Your task to perform on an android device: set default search engine in the chrome app Image 0: 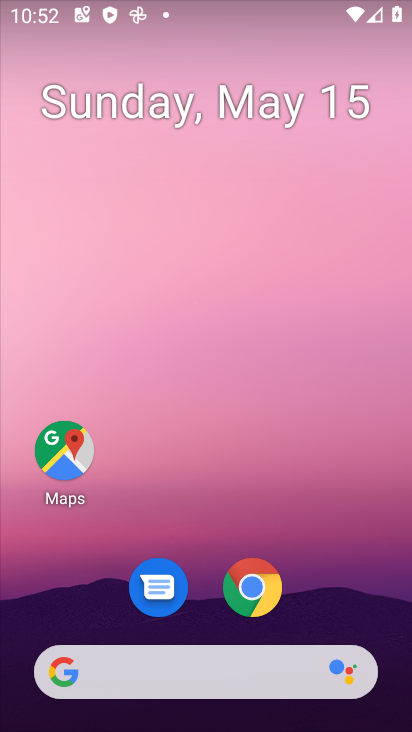
Step 0: drag from (384, 627) to (268, 43)
Your task to perform on an android device: set default search engine in the chrome app Image 1: 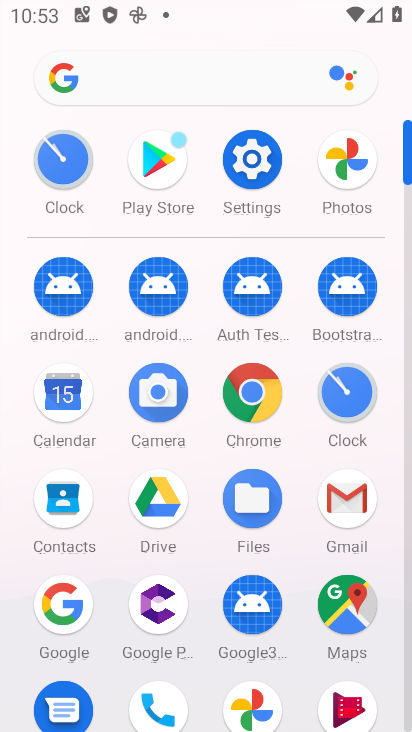
Step 1: click (245, 373)
Your task to perform on an android device: set default search engine in the chrome app Image 2: 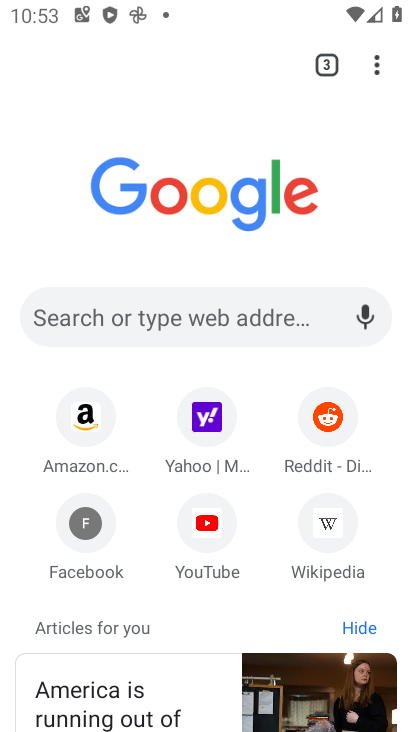
Step 2: click (377, 64)
Your task to perform on an android device: set default search engine in the chrome app Image 3: 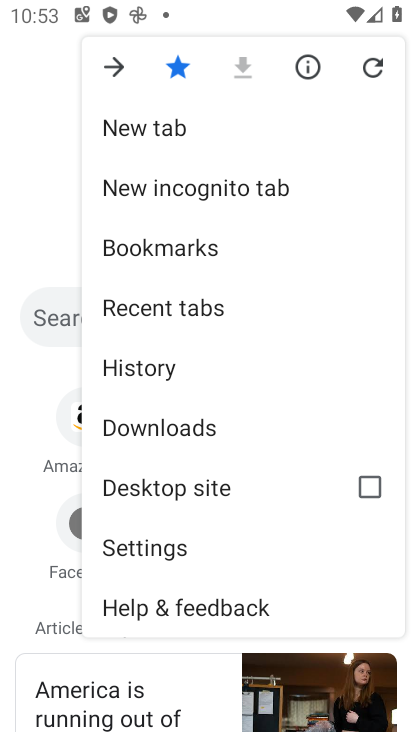
Step 3: click (198, 542)
Your task to perform on an android device: set default search engine in the chrome app Image 4: 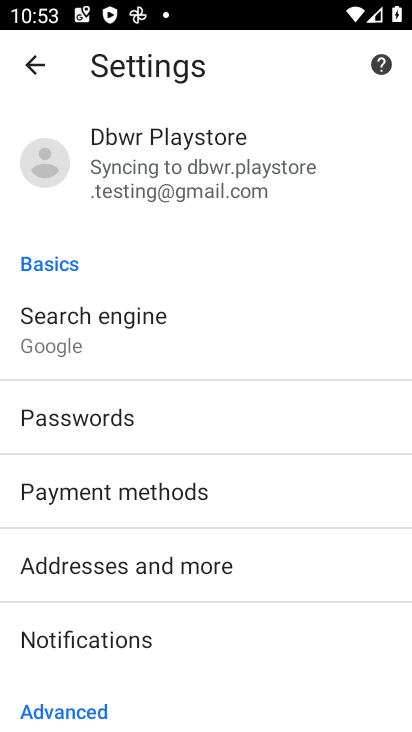
Step 4: click (158, 352)
Your task to perform on an android device: set default search engine in the chrome app Image 5: 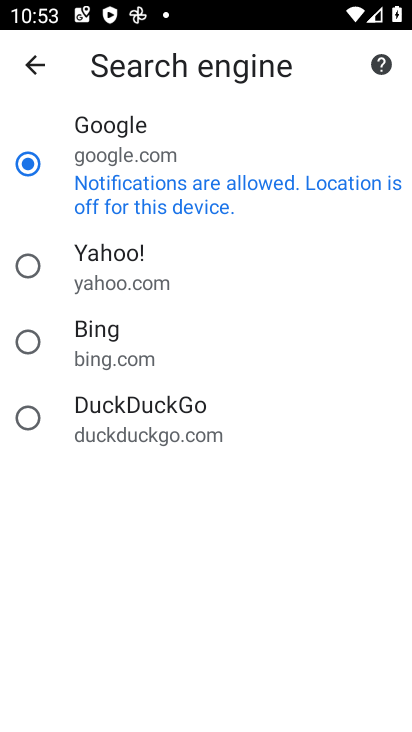
Step 5: click (144, 255)
Your task to perform on an android device: set default search engine in the chrome app Image 6: 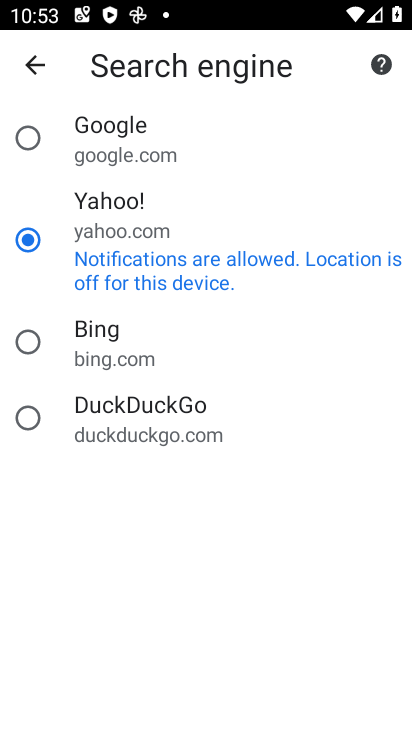
Step 6: task complete